Your task to perform on an android device: Add "apple airpods pro" to the cart on walmart, then select checkout. Image 0: 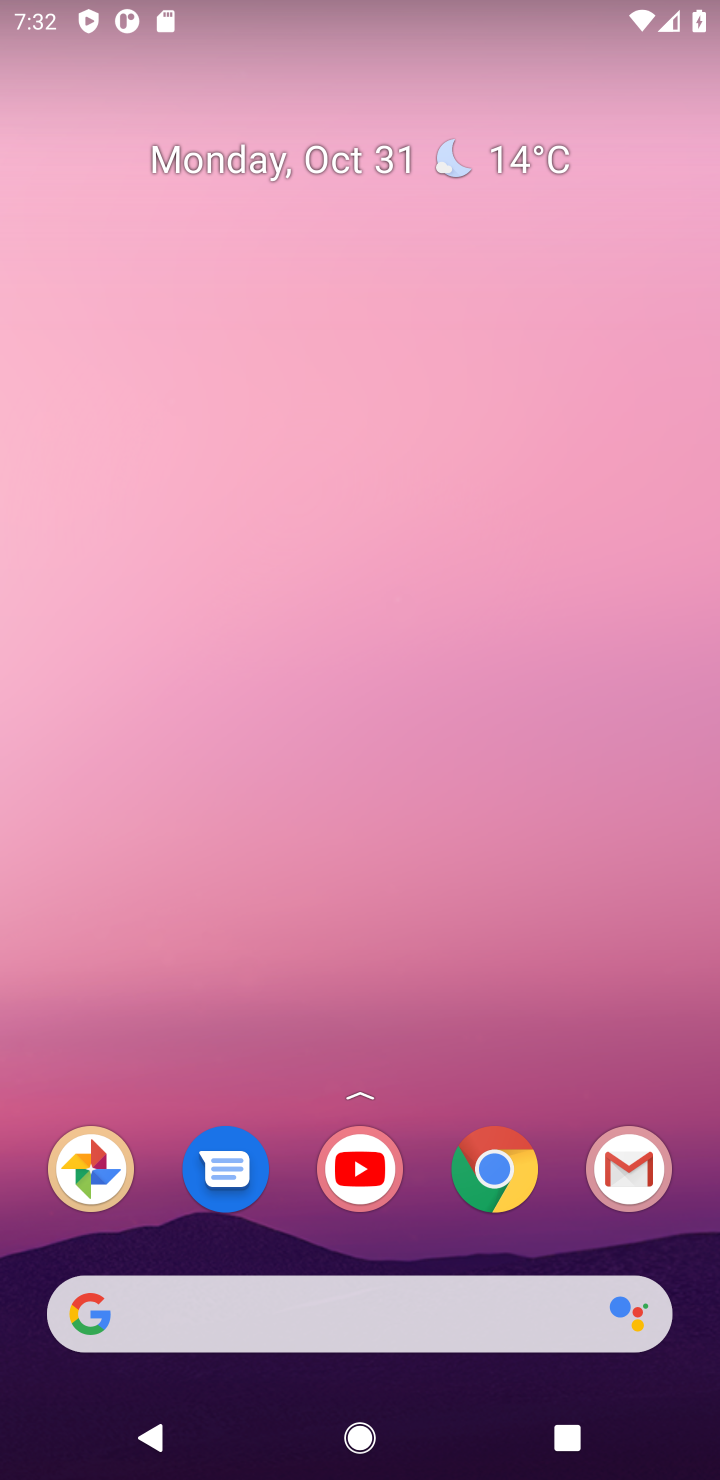
Step 0: drag from (364, 1180) to (399, 406)
Your task to perform on an android device: Add "apple airpods pro" to the cart on walmart, then select checkout. Image 1: 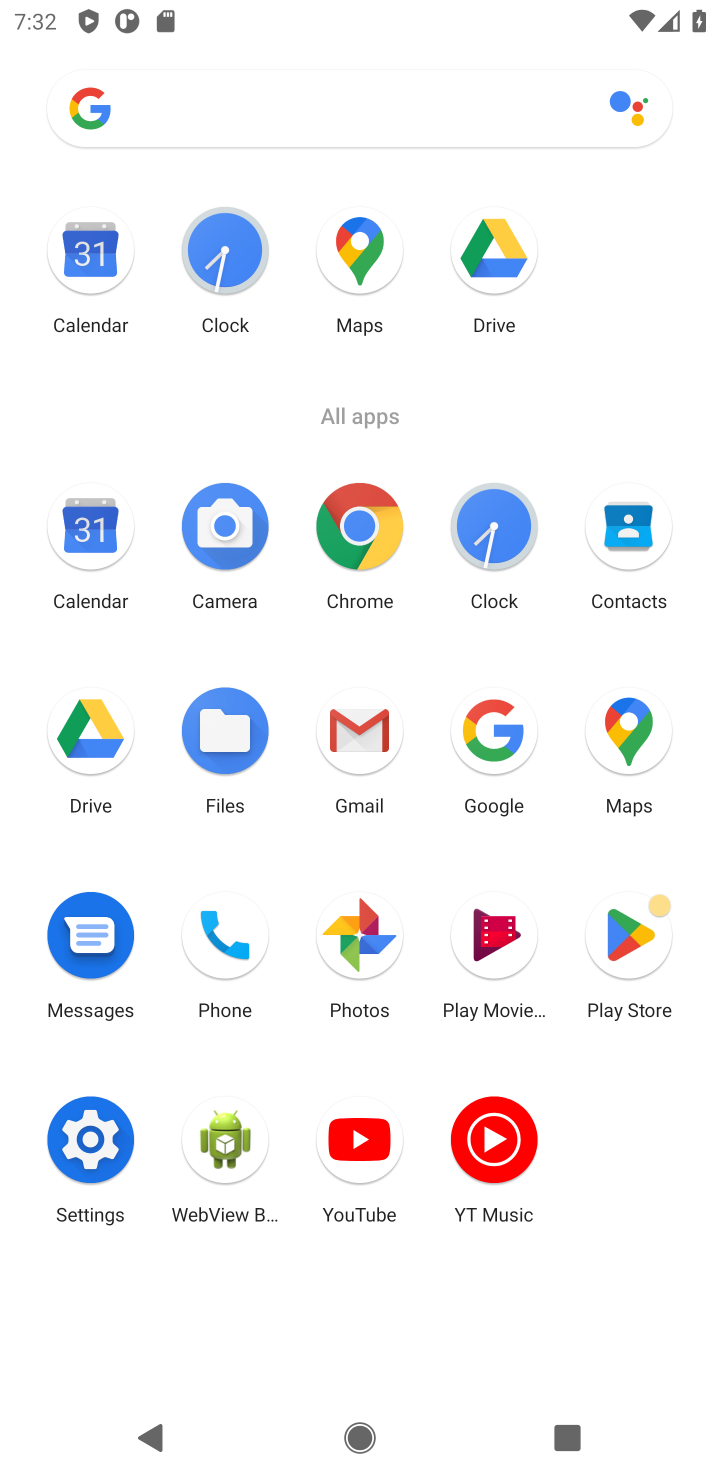
Step 1: click (479, 699)
Your task to perform on an android device: Add "apple airpods pro" to the cart on walmart, then select checkout. Image 2: 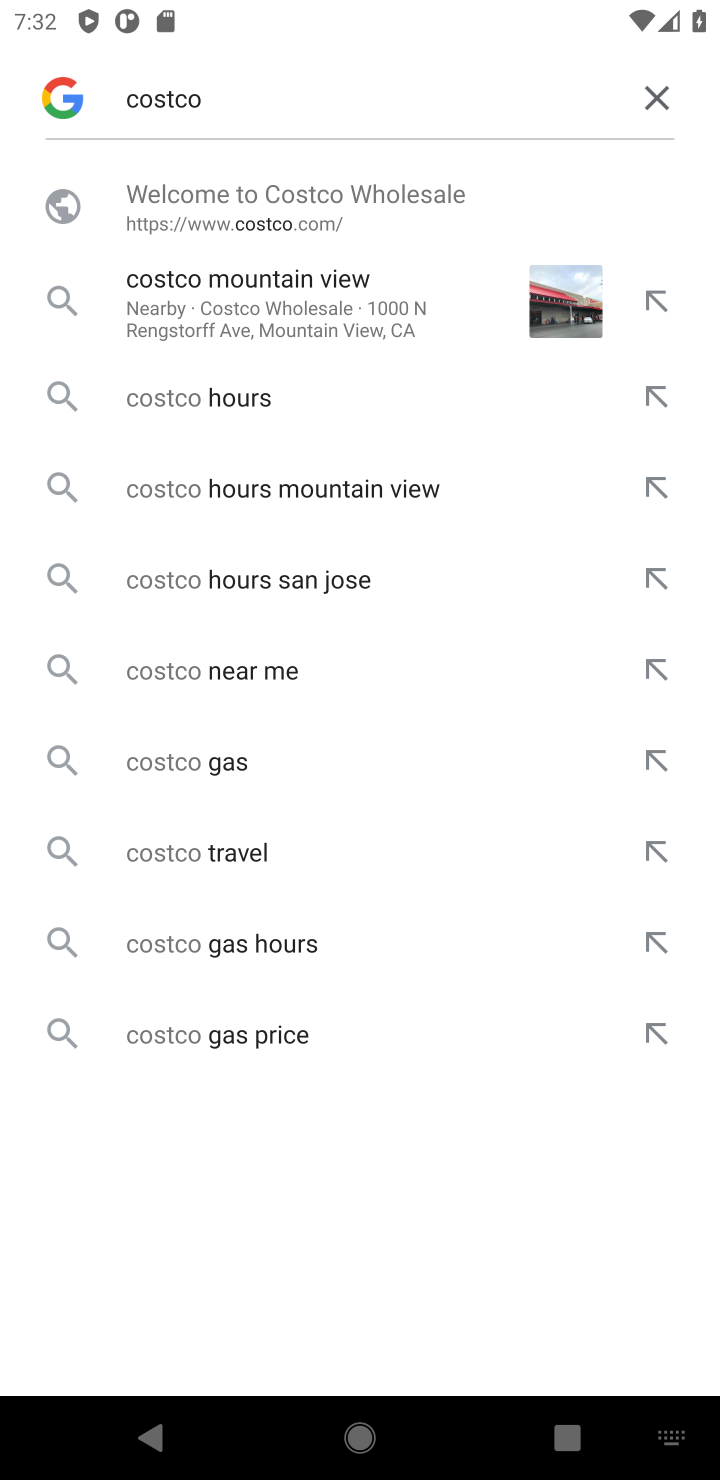
Step 2: click (653, 89)
Your task to perform on an android device: Add "apple airpods pro" to the cart on walmart, then select checkout. Image 3: 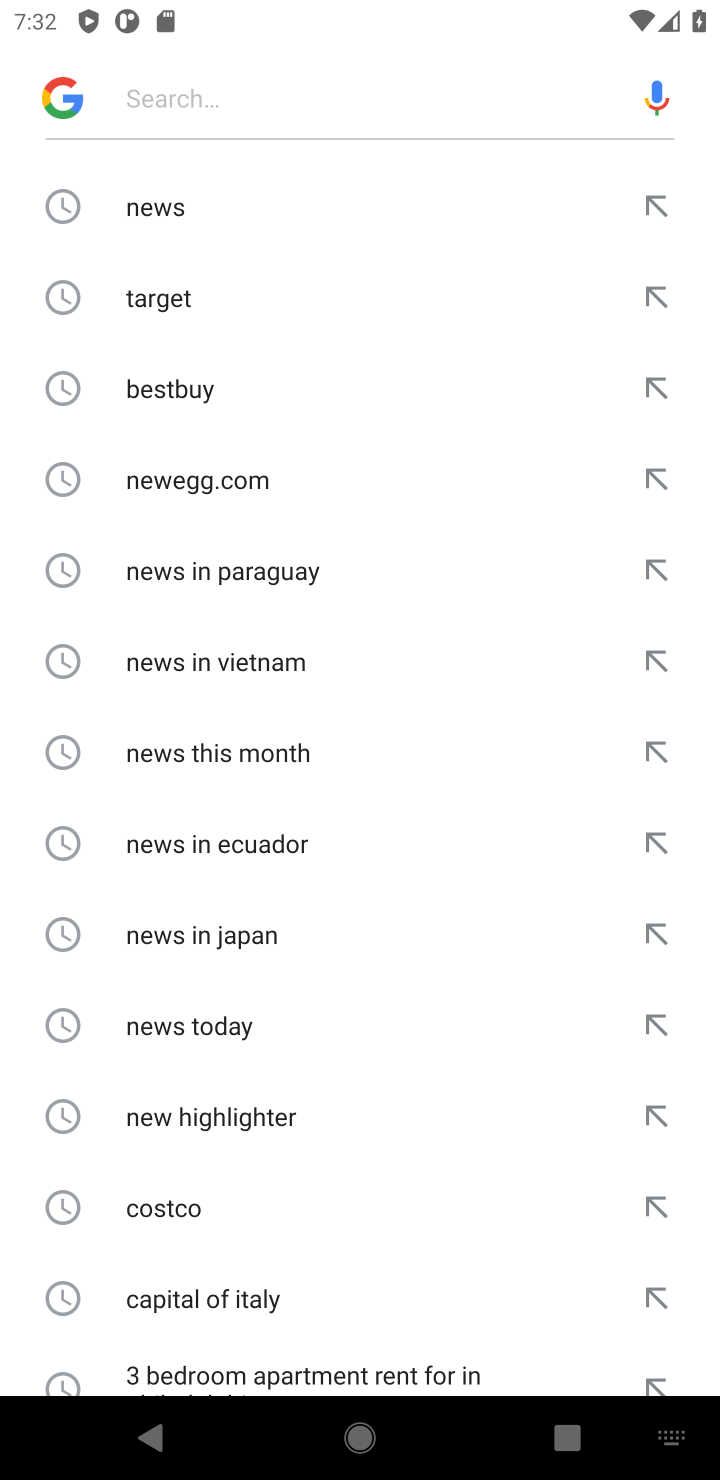
Step 3: click (243, 98)
Your task to perform on an android device: Add "apple airpods pro" to the cart on walmart, then select checkout. Image 4: 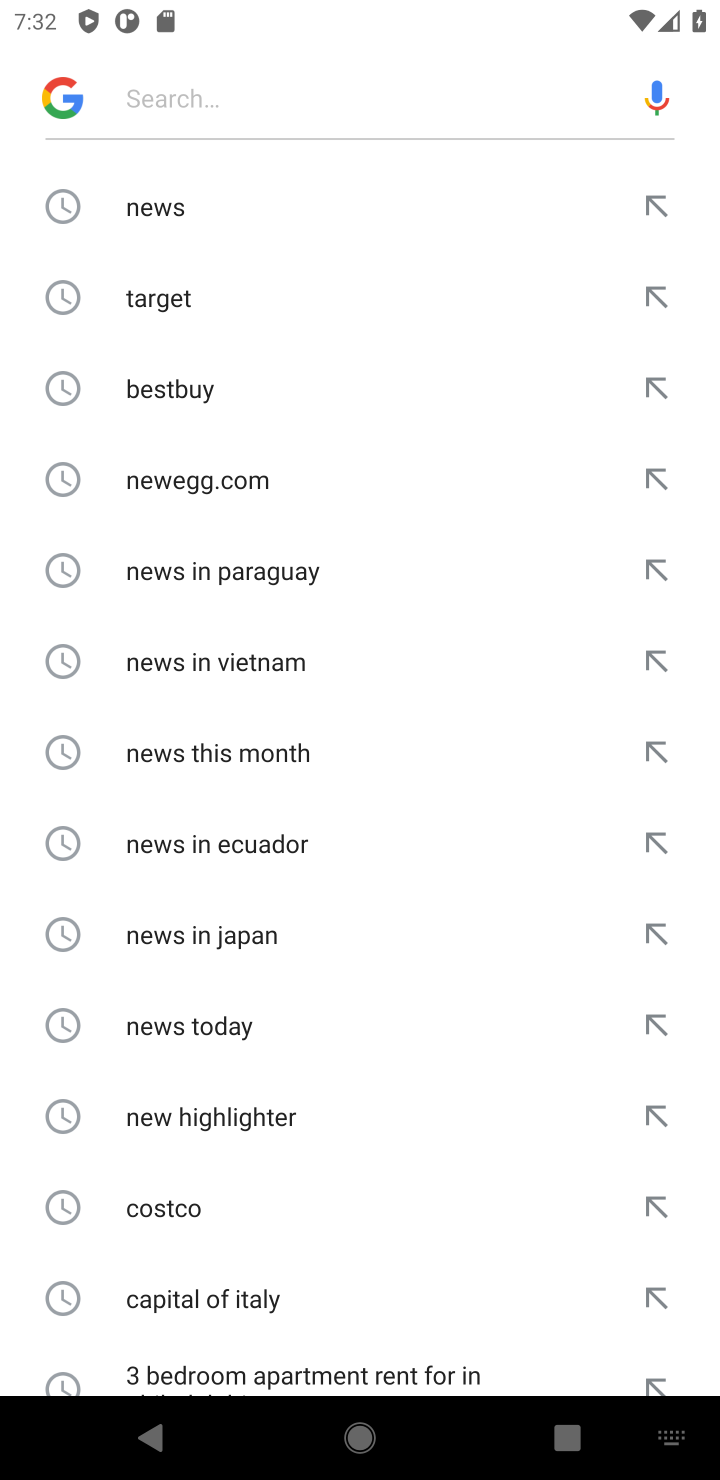
Step 4: type "walmart "
Your task to perform on an android device: Add "apple airpods pro" to the cart on walmart, then select checkout. Image 5: 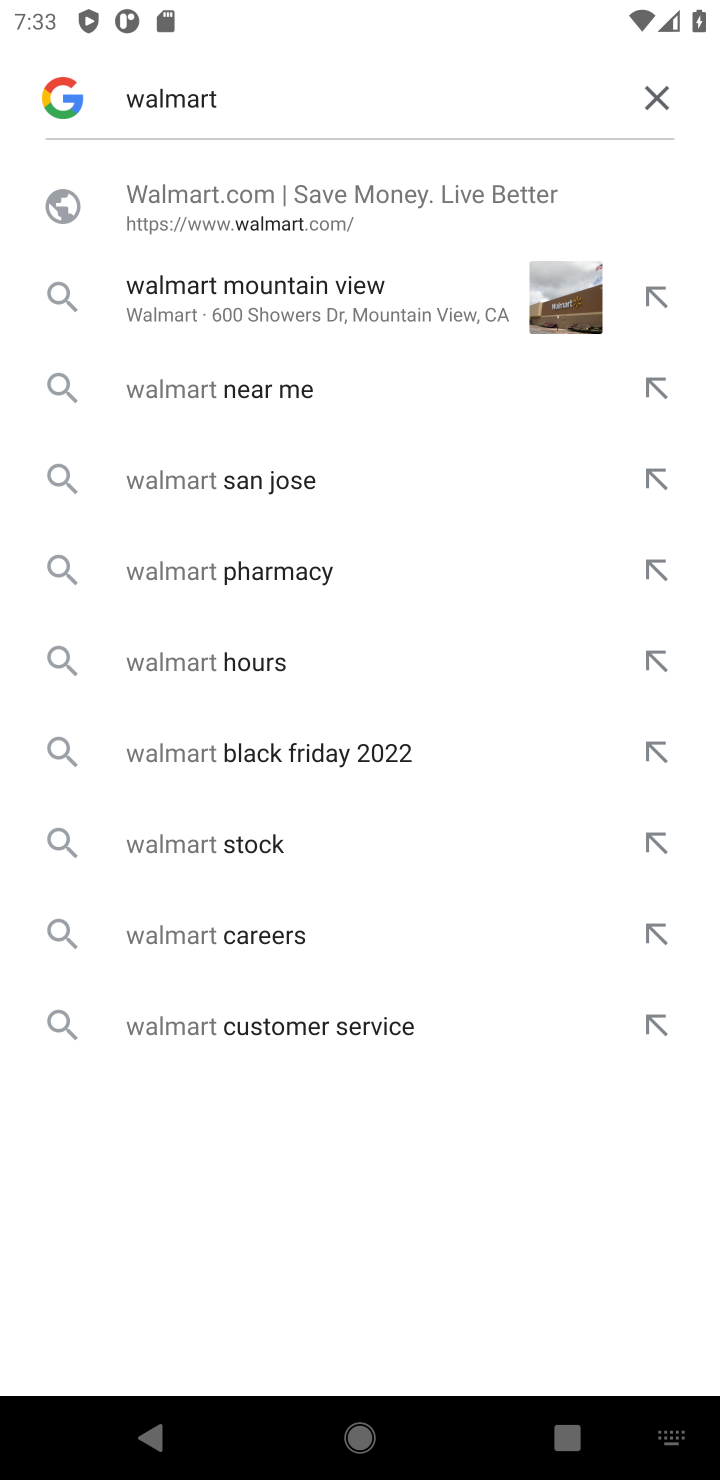
Step 5: click (229, 397)
Your task to perform on an android device: Add "apple airpods pro" to the cart on walmart, then select checkout. Image 6: 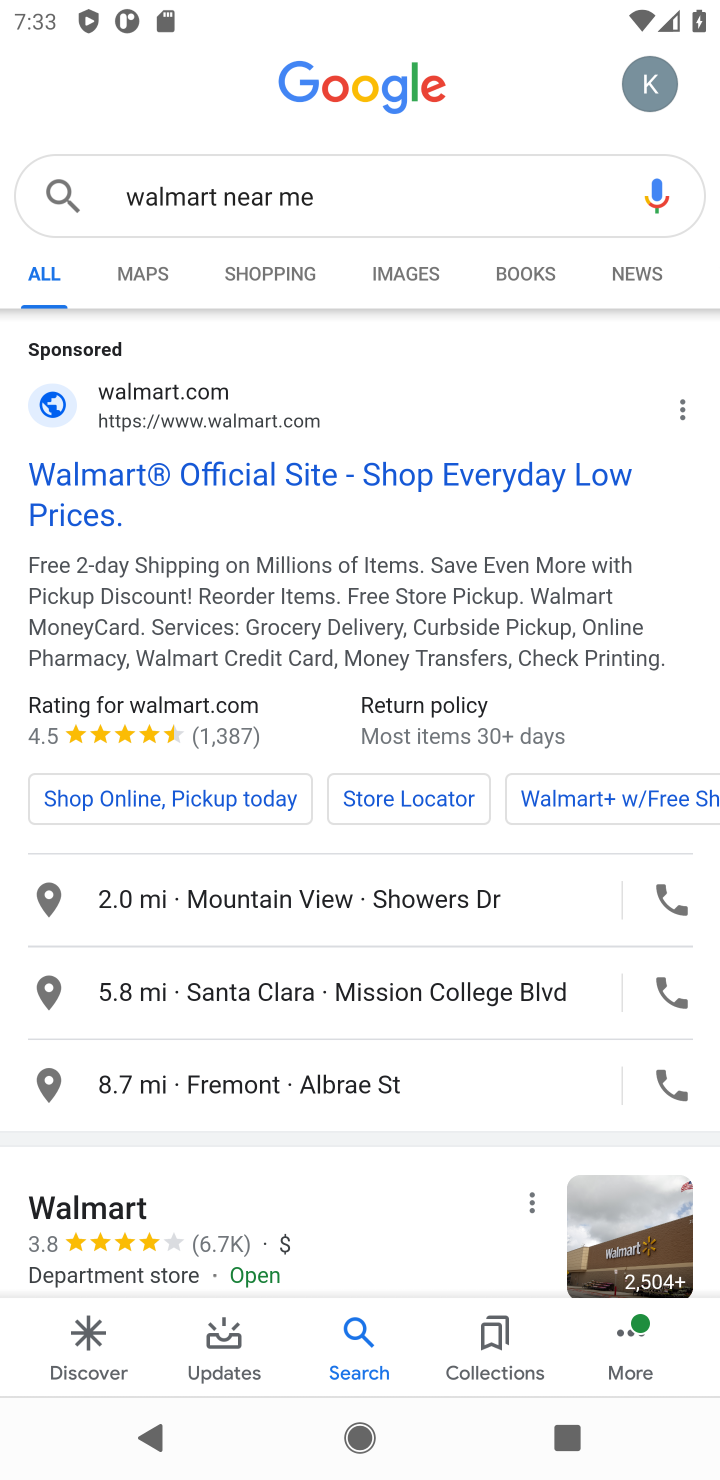
Step 6: drag from (306, 1060) to (368, 311)
Your task to perform on an android device: Add "apple airpods pro" to the cart on walmart, then select checkout. Image 7: 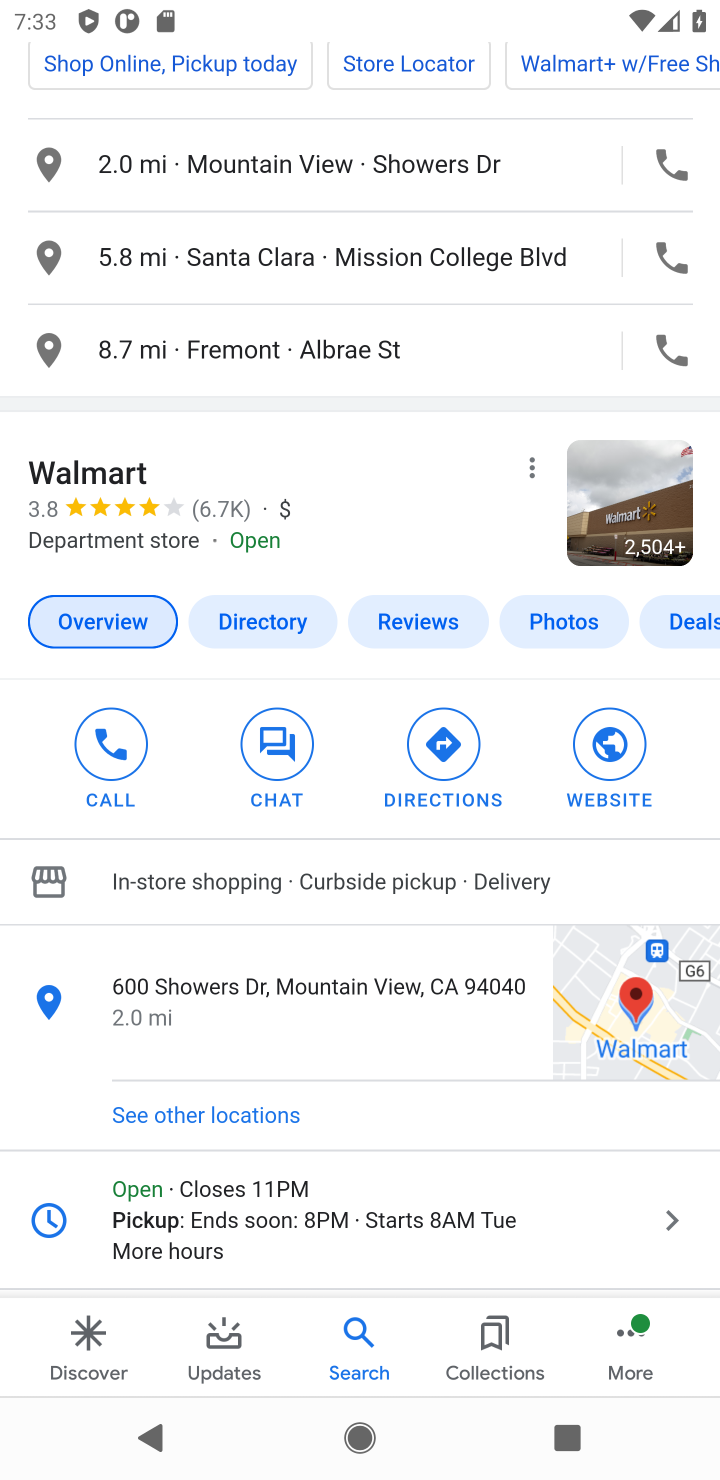
Step 7: drag from (64, 1180) to (107, 261)
Your task to perform on an android device: Add "apple airpods pro" to the cart on walmart, then select checkout. Image 8: 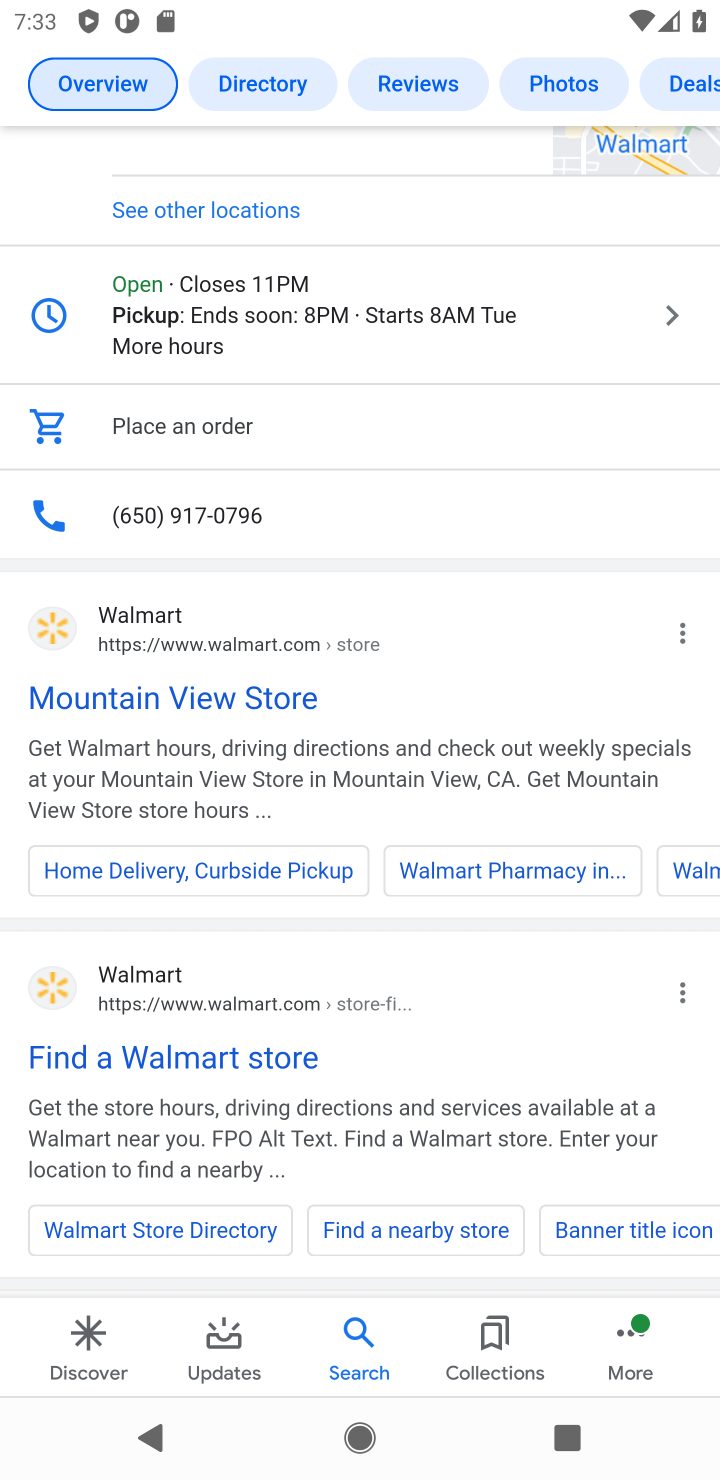
Step 8: click (49, 612)
Your task to perform on an android device: Add "apple airpods pro" to the cart on walmart, then select checkout. Image 9: 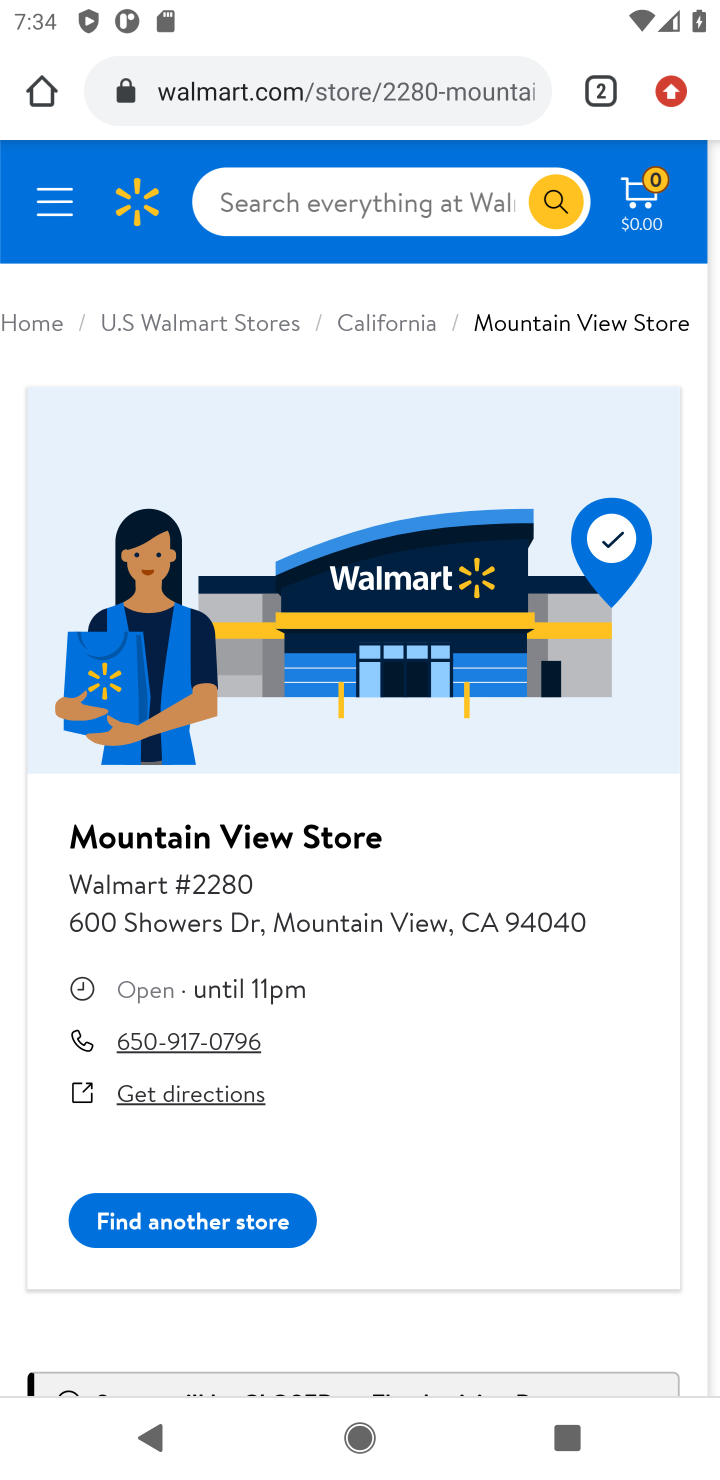
Step 9: click (340, 189)
Your task to perform on an android device: Add "apple airpods pro" to the cart on walmart, then select checkout. Image 10: 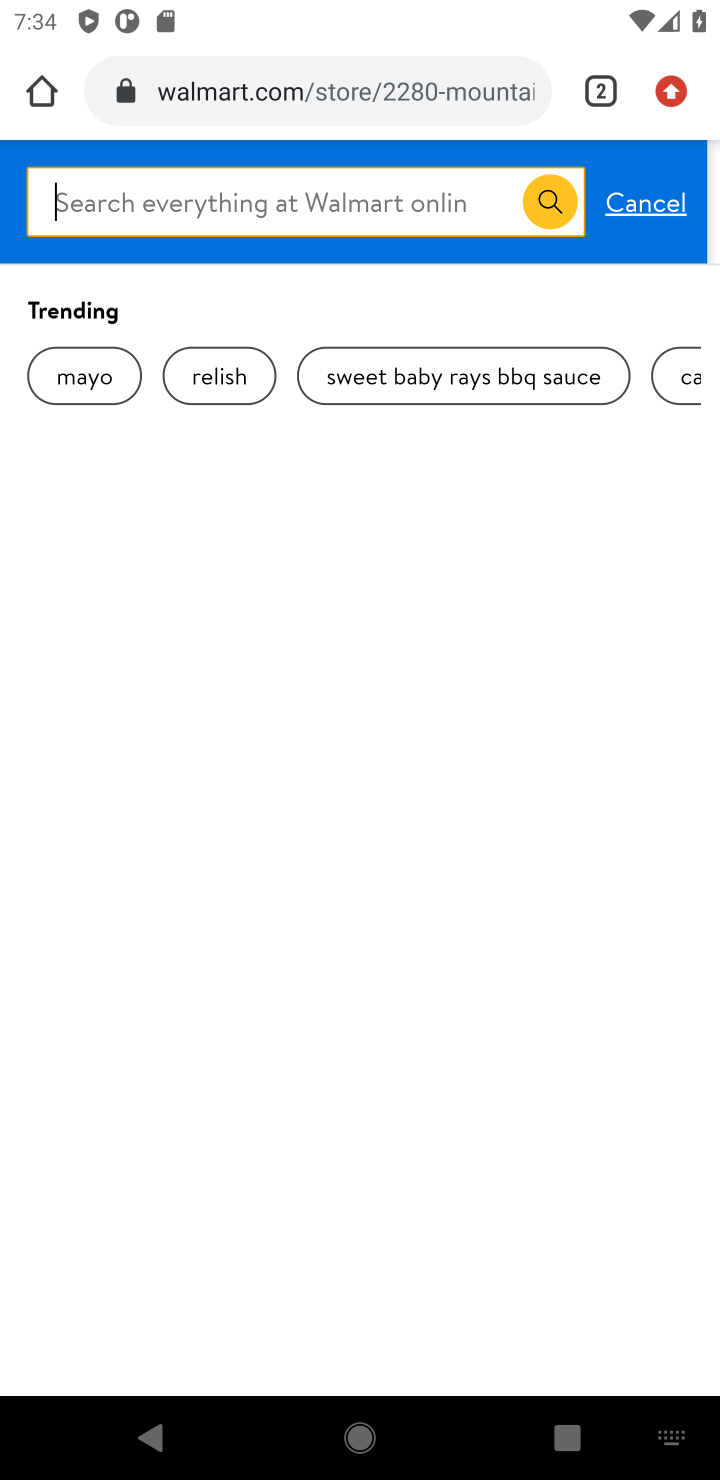
Step 10: type "airpods "
Your task to perform on an android device: Add "apple airpods pro" to the cart on walmart, then select checkout. Image 11: 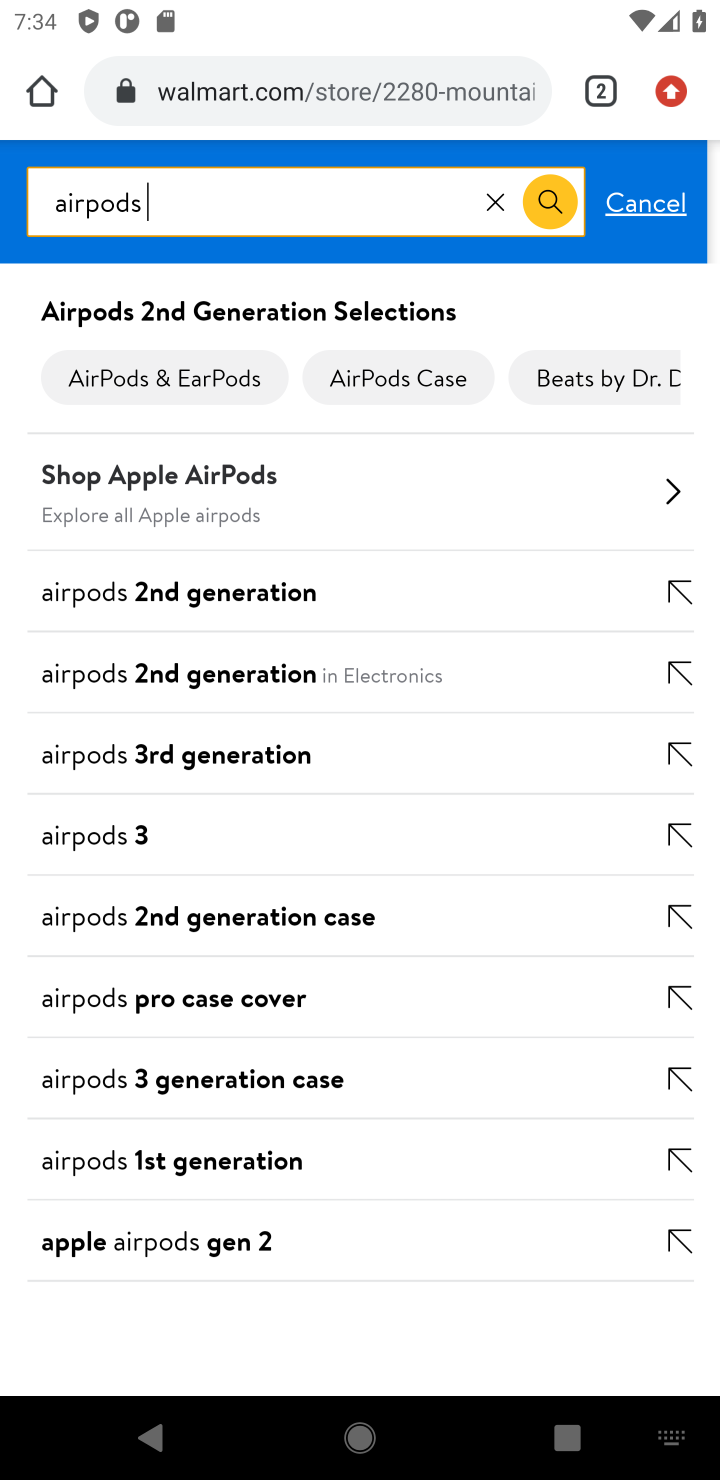
Step 11: click (137, 489)
Your task to perform on an android device: Add "apple airpods pro" to the cart on walmart, then select checkout. Image 12: 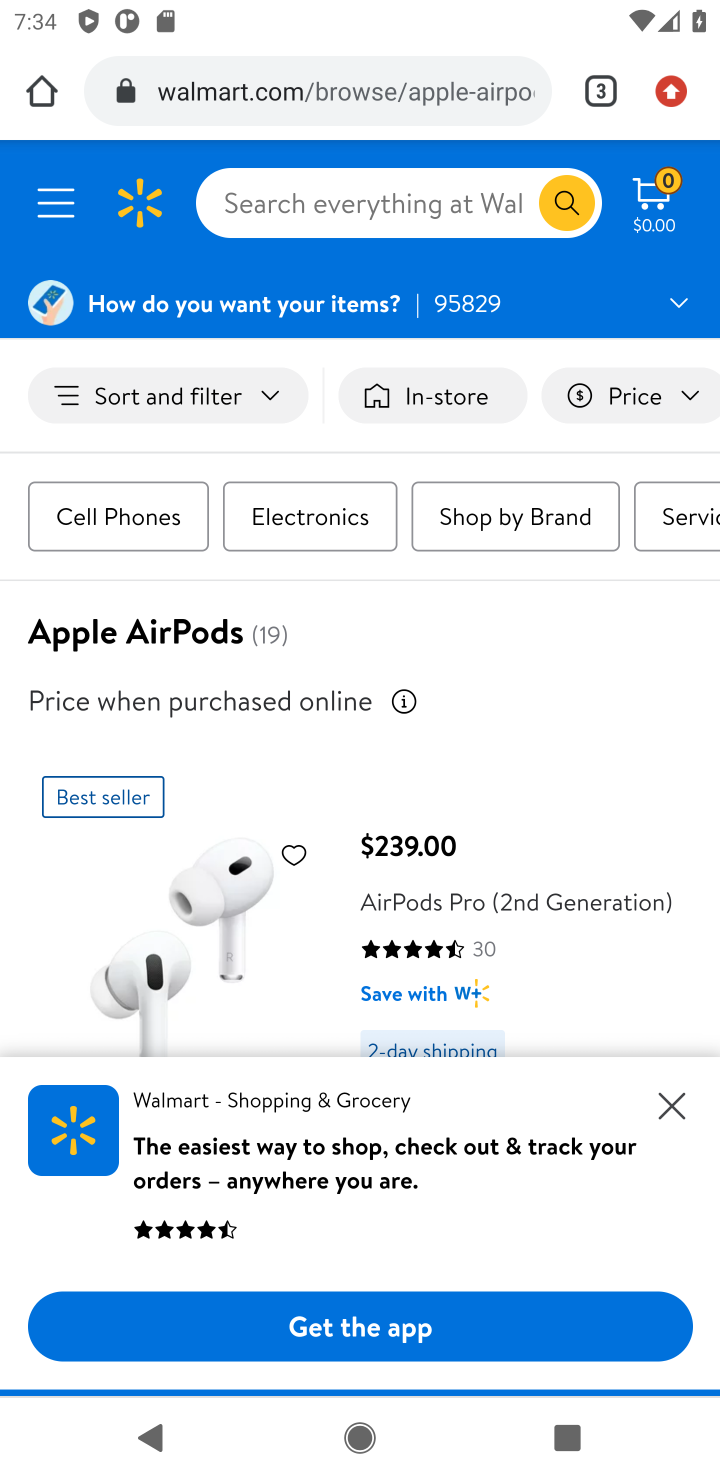
Step 12: click (683, 1103)
Your task to perform on an android device: Add "apple airpods pro" to the cart on walmart, then select checkout. Image 13: 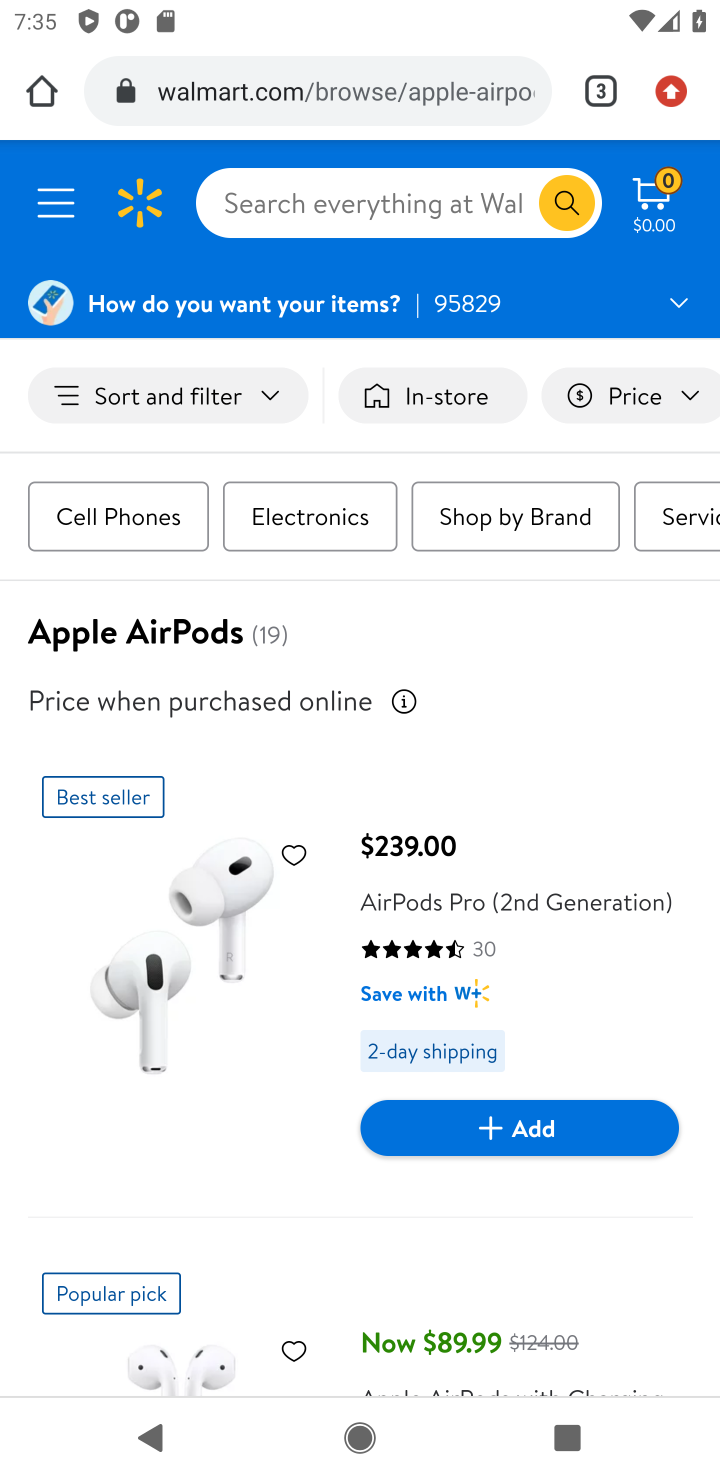
Step 13: click (525, 1116)
Your task to perform on an android device: Add "apple airpods pro" to the cart on walmart, then select checkout. Image 14: 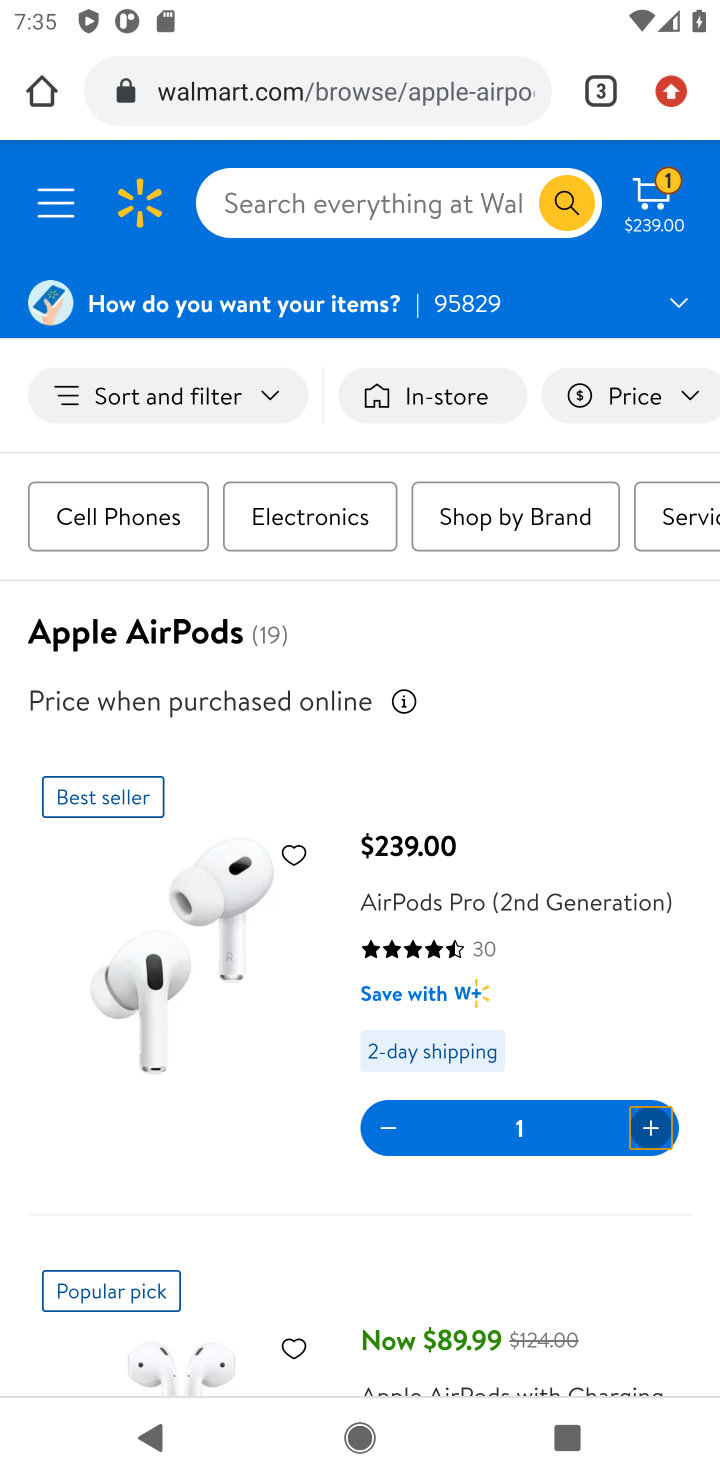
Step 14: click (468, 1127)
Your task to perform on an android device: Add "apple airpods pro" to the cart on walmart, then select checkout. Image 15: 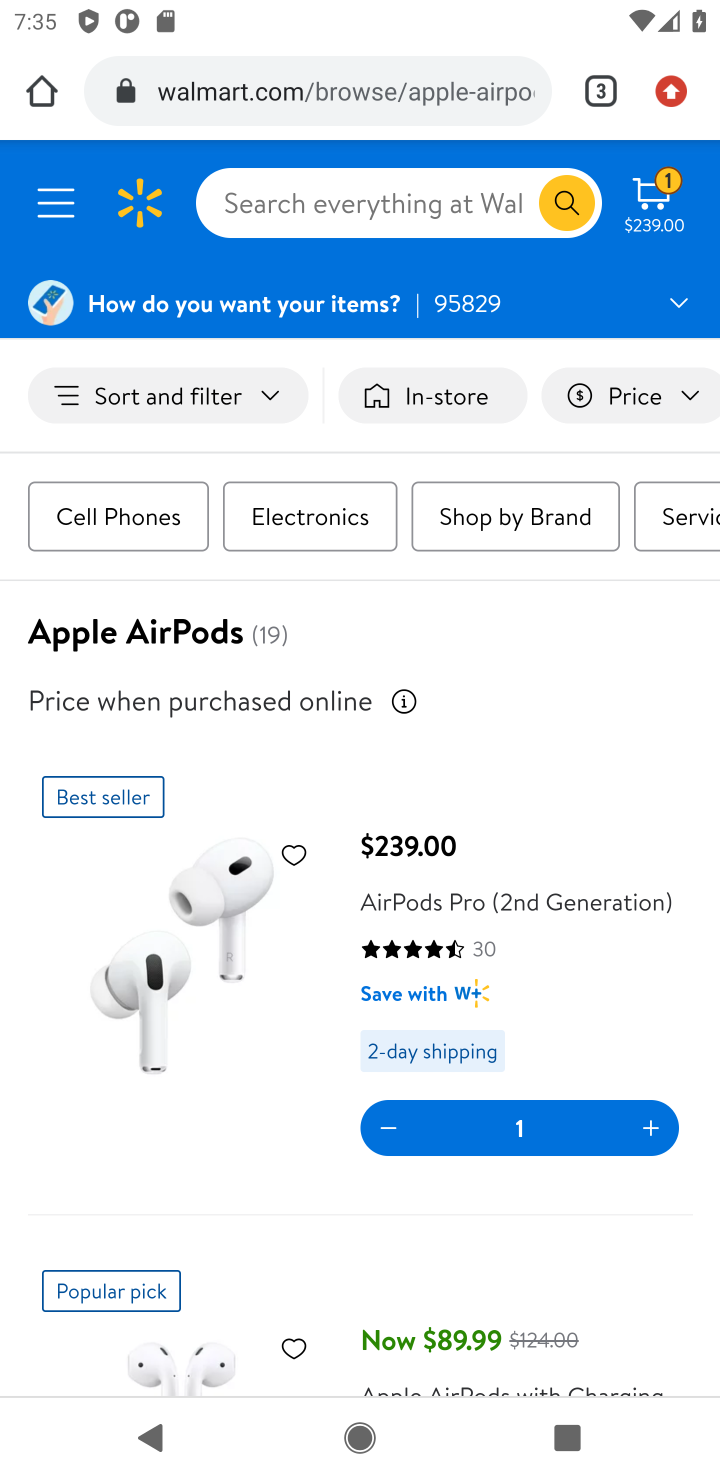
Step 15: task complete